Your task to perform on an android device: Open the map Image 0: 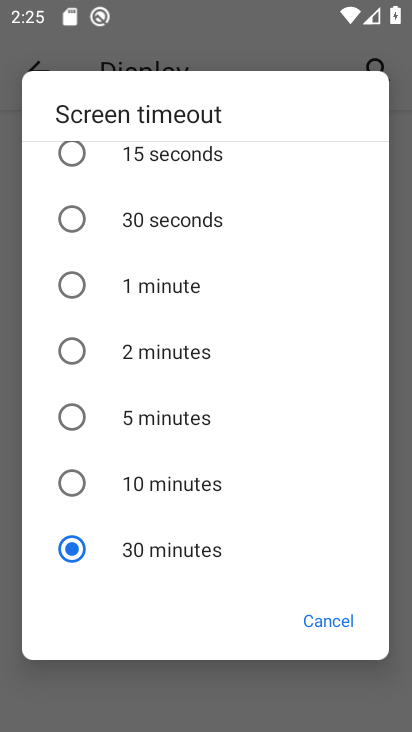
Step 0: press home button
Your task to perform on an android device: Open the map Image 1: 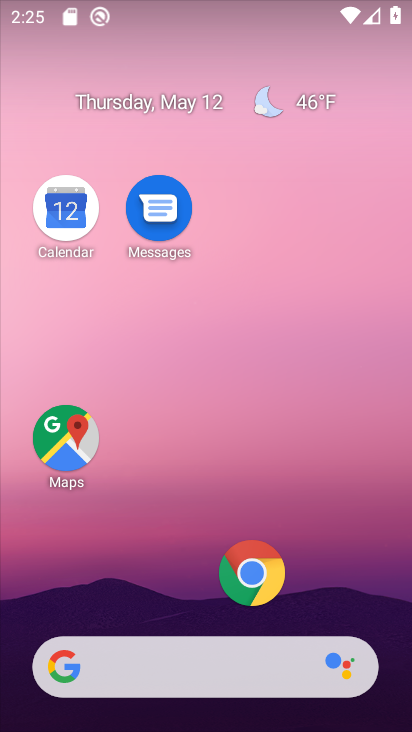
Step 1: drag from (174, 605) to (273, 65)
Your task to perform on an android device: Open the map Image 2: 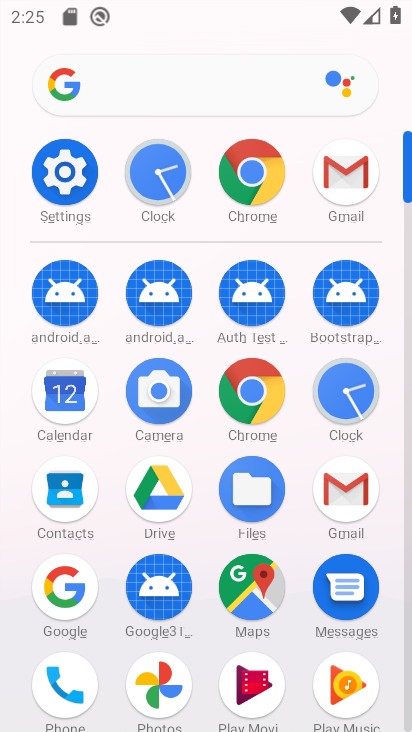
Step 2: click (239, 595)
Your task to perform on an android device: Open the map Image 3: 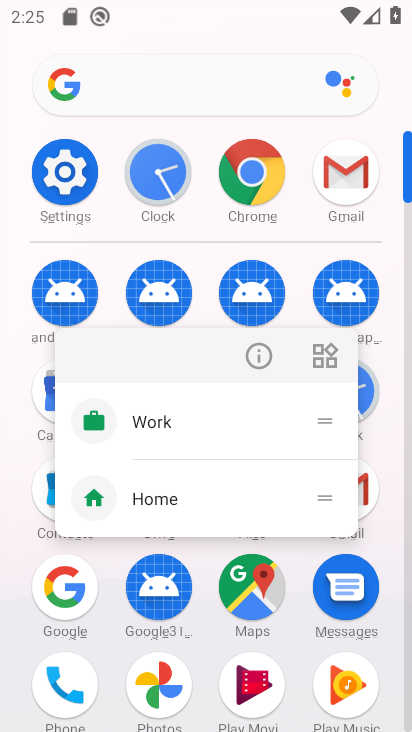
Step 3: click (265, 351)
Your task to perform on an android device: Open the map Image 4: 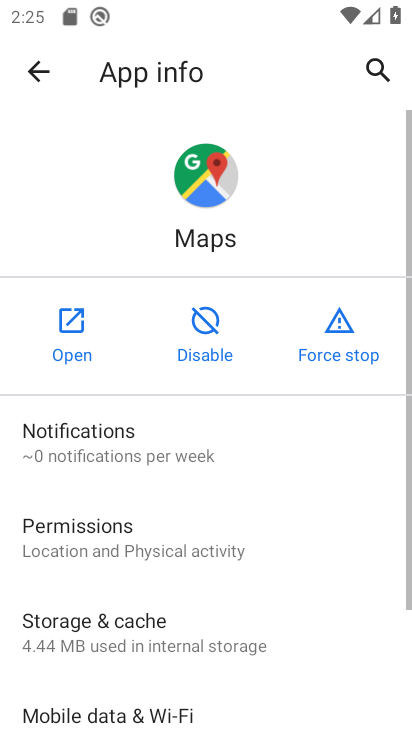
Step 4: click (83, 353)
Your task to perform on an android device: Open the map Image 5: 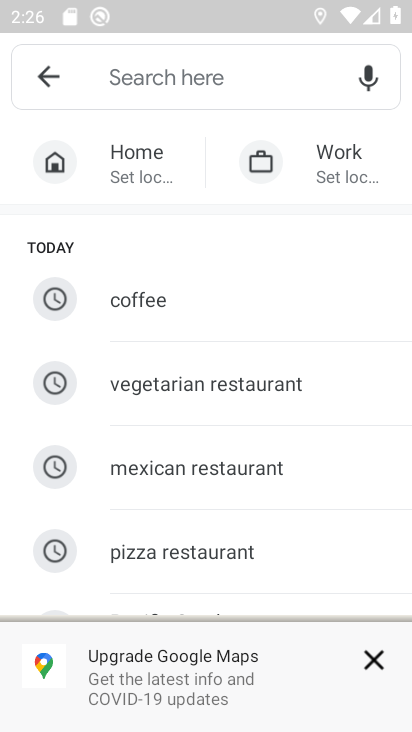
Step 5: task complete